Your task to perform on an android device: check android version Image 0: 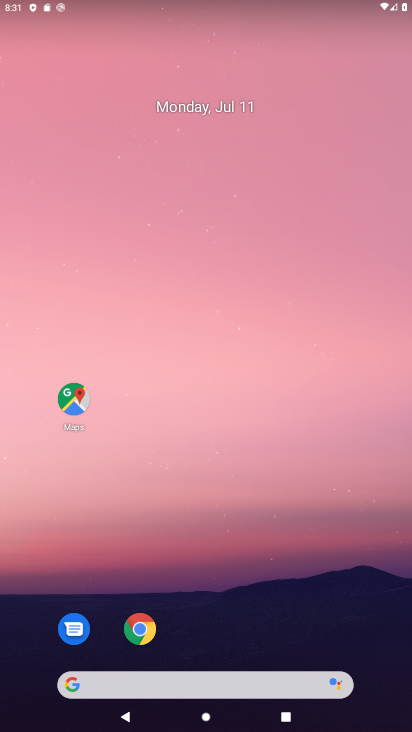
Step 0: drag from (140, 274) to (140, 617)
Your task to perform on an android device: check android version Image 1: 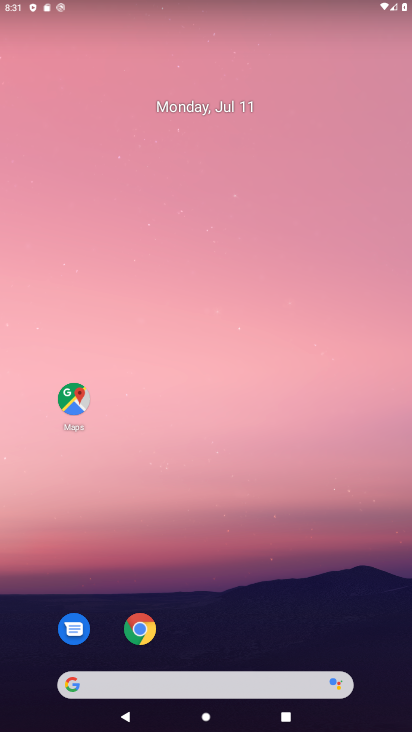
Step 1: drag from (322, 8) to (290, 584)
Your task to perform on an android device: check android version Image 2: 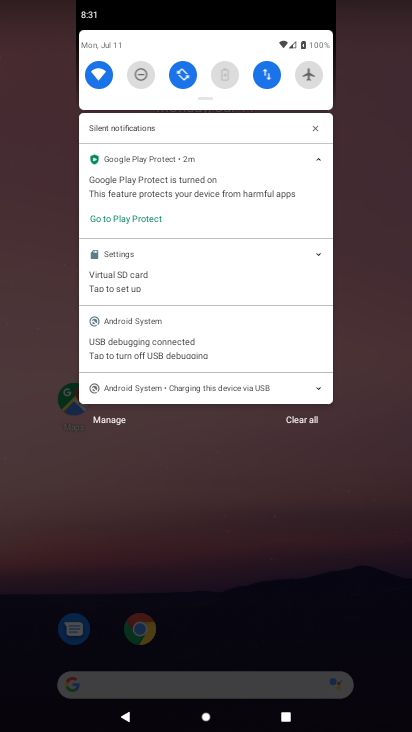
Step 2: drag from (279, 18) to (216, 659)
Your task to perform on an android device: check android version Image 3: 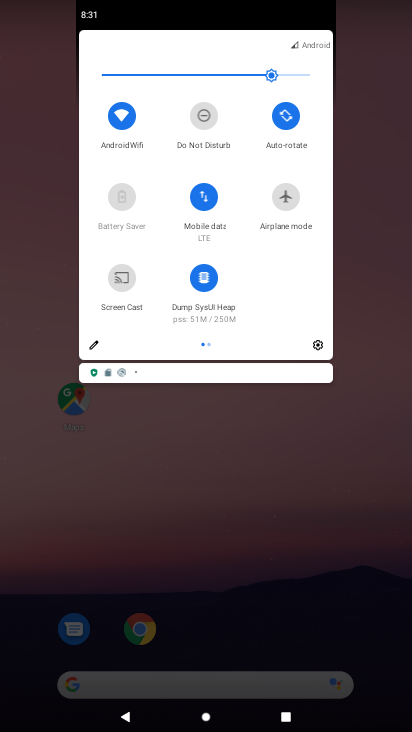
Step 3: drag from (234, 78) to (211, 514)
Your task to perform on an android device: check android version Image 4: 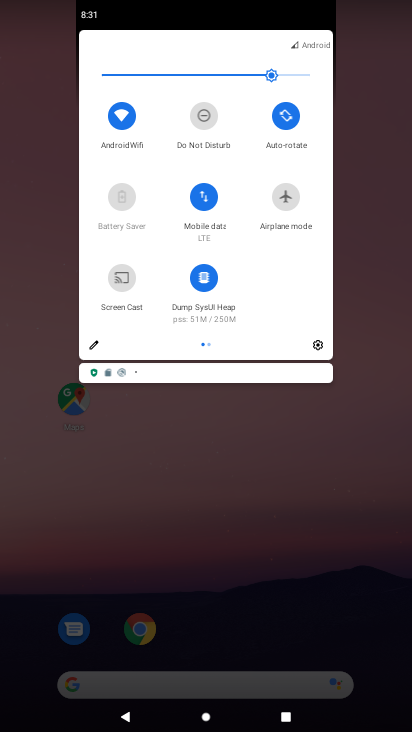
Step 4: click (317, 347)
Your task to perform on an android device: check android version Image 5: 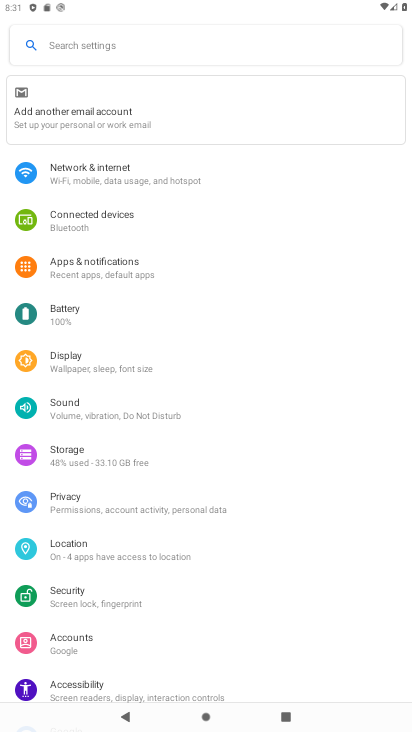
Step 5: drag from (124, 665) to (257, 168)
Your task to perform on an android device: check android version Image 6: 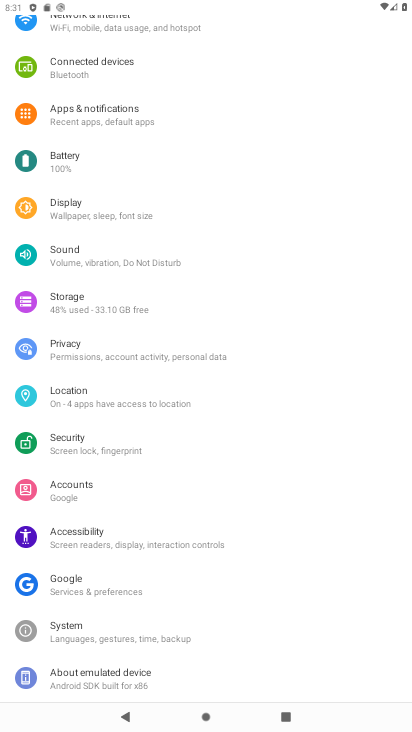
Step 6: drag from (151, 614) to (238, 197)
Your task to perform on an android device: check android version Image 7: 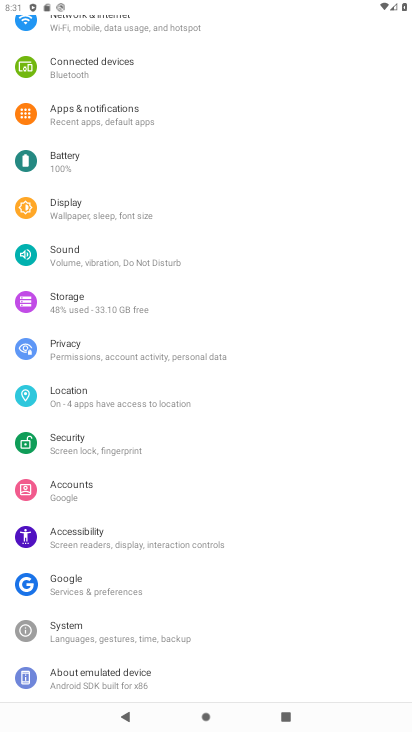
Step 7: drag from (96, 695) to (215, 197)
Your task to perform on an android device: check android version Image 8: 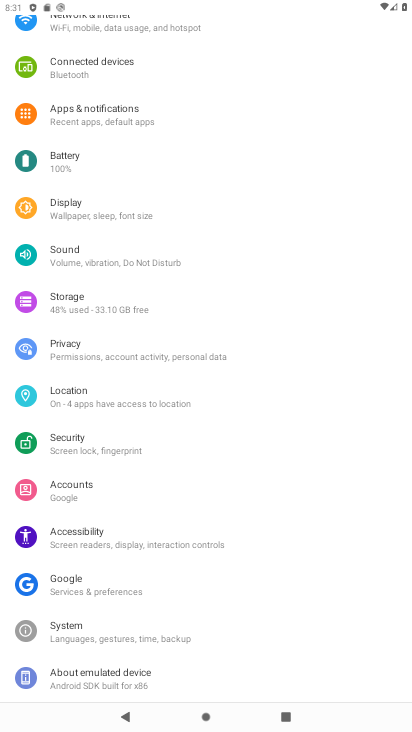
Step 8: click (59, 676)
Your task to perform on an android device: check android version Image 9: 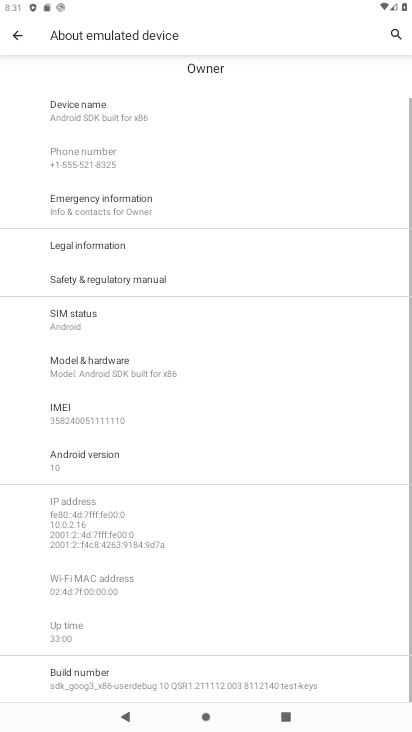
Step 9: click (159, 457)
Your task to perform on an android device: check android version Image 10: 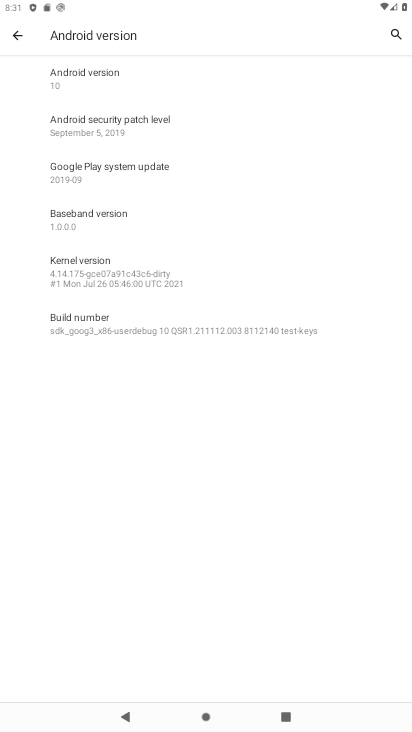
Step 10: click (247, 89)
Your task to perform on an android device: check android version Image 11: 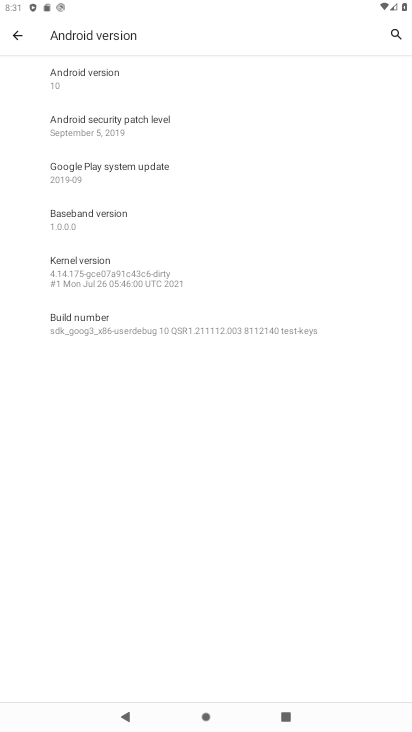
Step 11: task complete